Your task to perform on an android device: snooze an email in the gmail app Image 0: 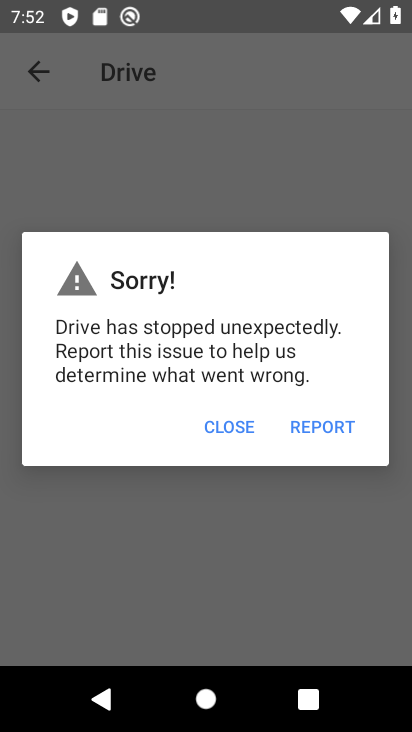
Step 0: press home button
Your task to perform on an android device: snooze an email in the gmail app Image 1: 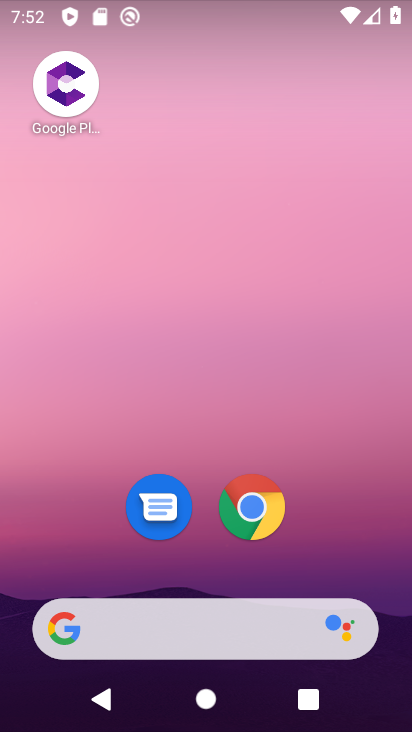
Step 1: drag from (319, 562) to (308, 4)
Your task to perform on an android device: snooze an email in the gmail app Image 2: 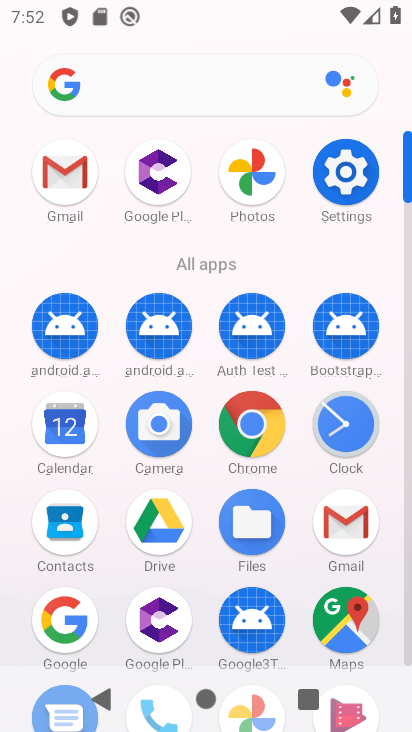
Step 2: click (59, 167)
Your task to perform on an android device: snooze an email in the gmail app Image 3: 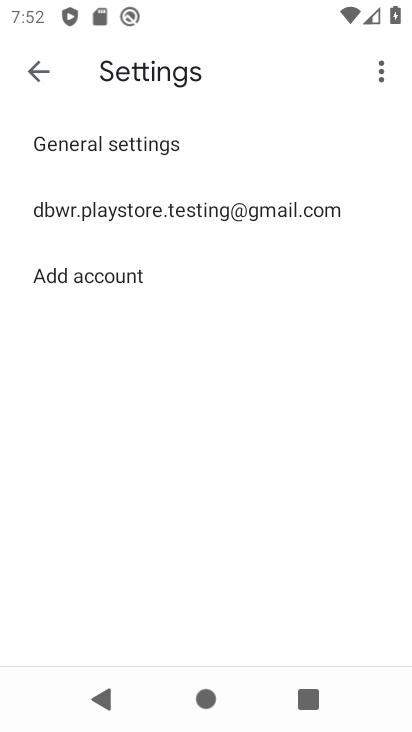
Step 3: click (26, 61)
Your task to perform on an android device: snooze an email in the gmail app Image 4: 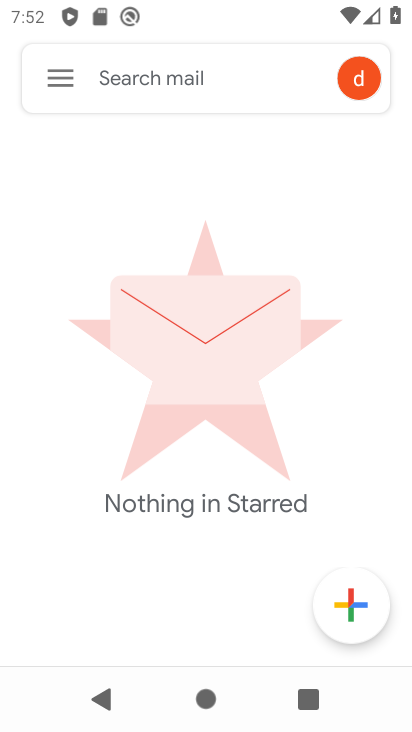
Step 4: click (61, 72)
Your task to perform on an android device: snooze an email in the gmail app Image 5: 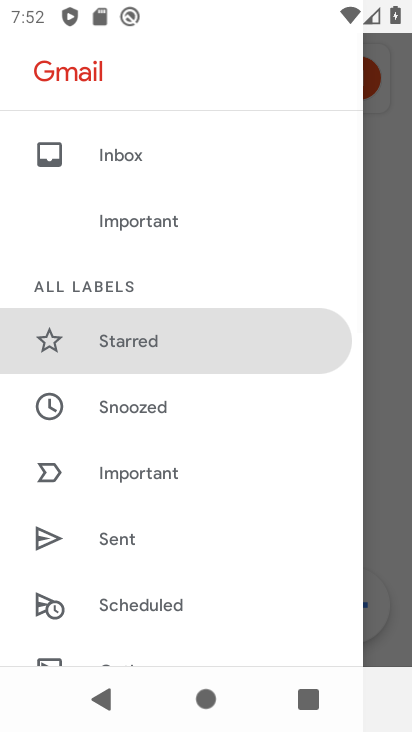
Step 5: drag from (182, 607) to (248, 304)
Your task to perform on an android device: snooze an email in the gmail app Image 6: 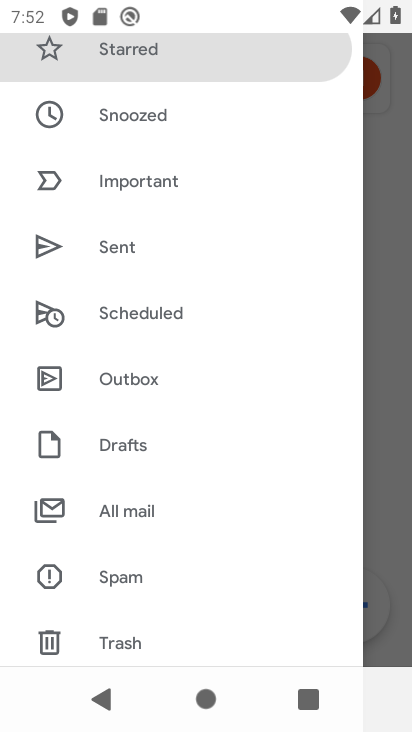
Step 6: click (149, 517)
Your task to perform on an android device: snooze an email in the gmail app Image 7: 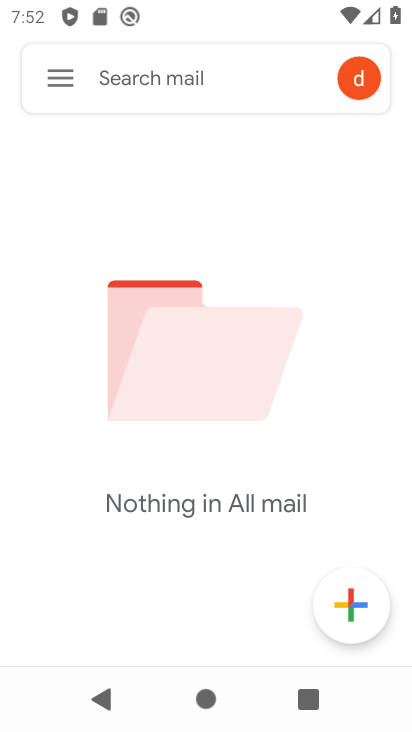
Step 7: task complete